Your task to perform on an android device: change text size in settings app Image 0: 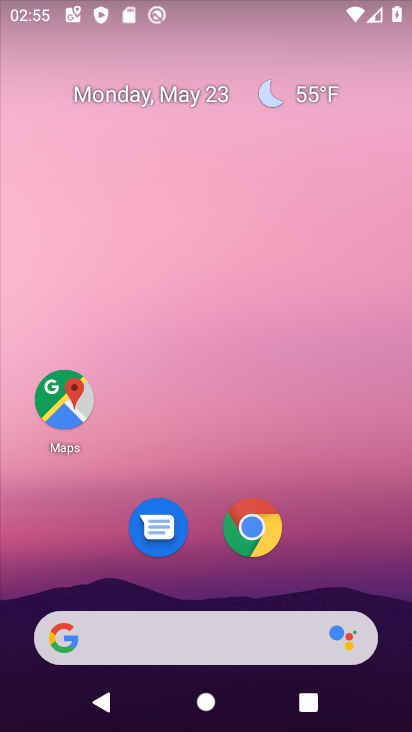
Step 0: drag from (332, 527) to (257, 50)
Your task to perform on an android device: change text size in settings app Image 1: 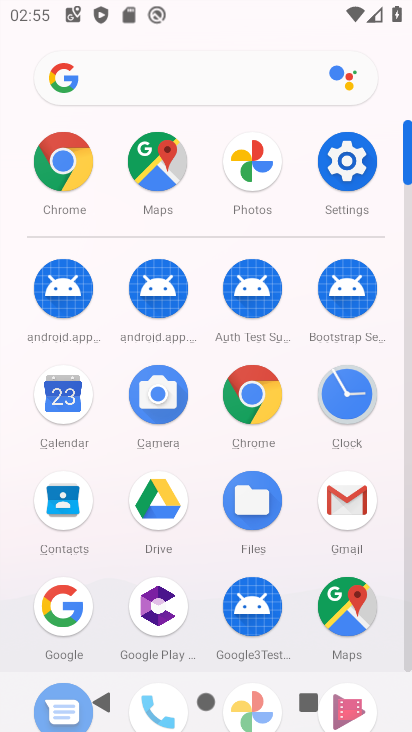
Step 1: drag from (4, 596) to (0, 206)
Your task to perform on an android device: change text size in settings app Image 2: 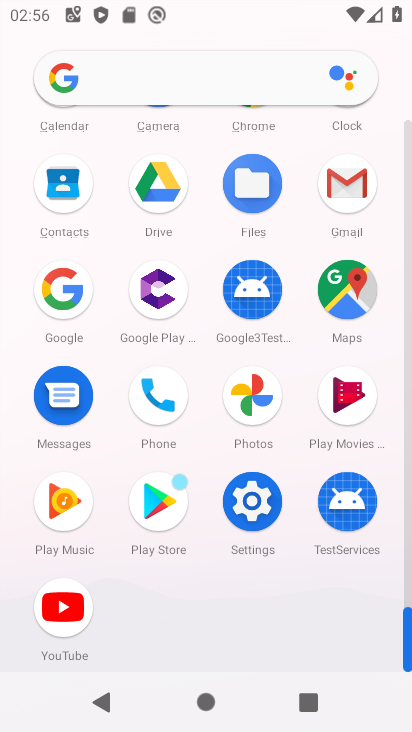
Step 2: click (251, 502)
Your task to perform on an android device: change text size in settings app Image 3: 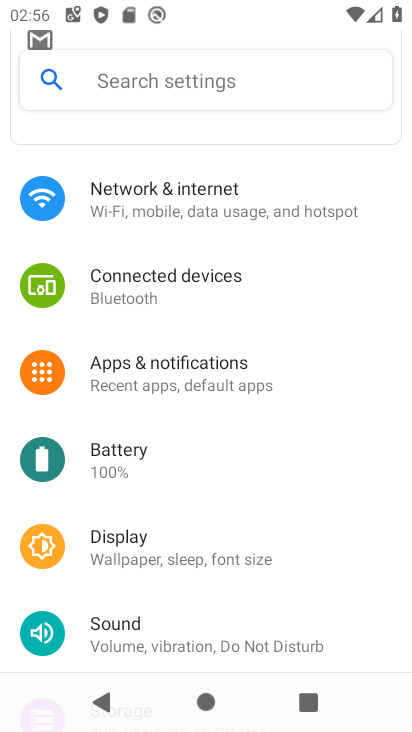
Step 3: drag from (253, 612) to (275, 238)
Your task to perform on an android device: change text size in settings app Image 4: 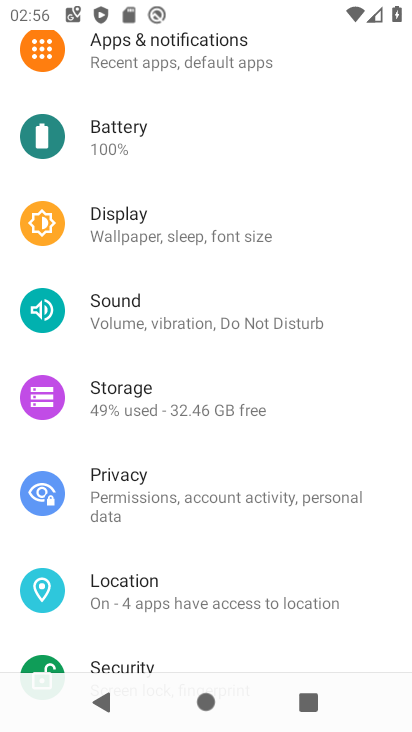
Step 4: drag from (244, 558) to (257, 145)
Your task to perform on an android device: change text size in settings app Image 5: 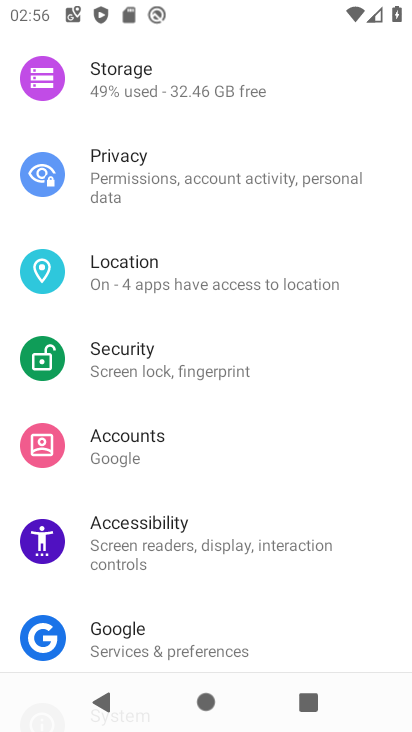
Step 5: drag from (222, 597) to (251, 116)
Your task to perform on an android device: change text size in settings app Image 6: 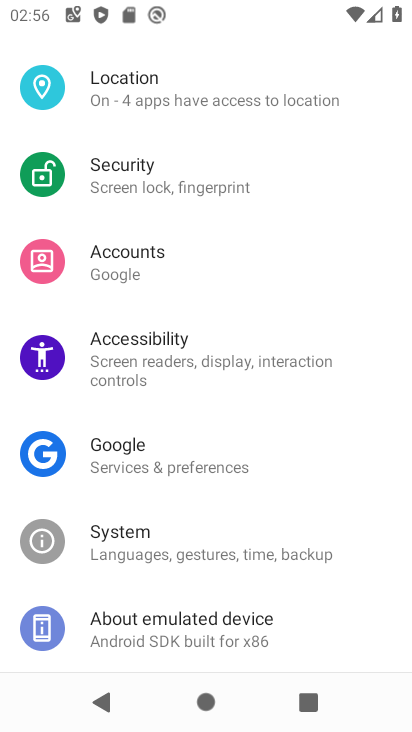
Step 6: drag from (204, 142) to (263, 706)
Your task to perform on an android device: change text size in settings app Image 7: 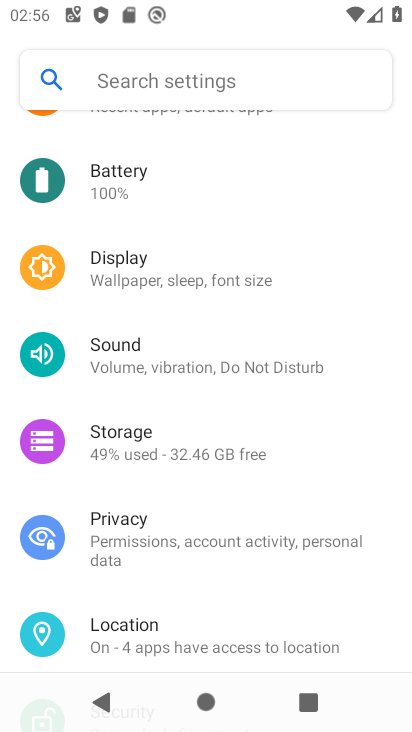
Step 7: click (212, 273)
Your task to perform on an android device: change text size in settings app Image 8: 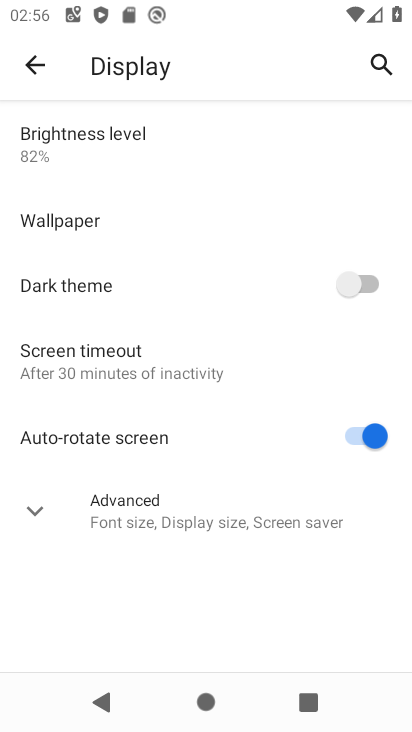
Step 8: click (75, 515)
Your task to perform on an android device: change text size in settings app Image 9: 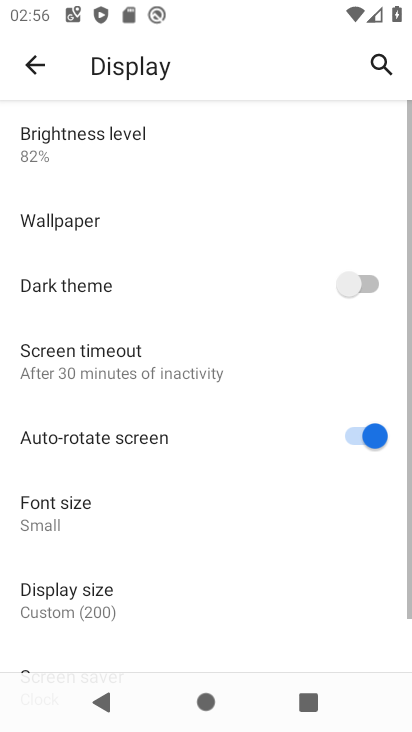
Step 9: drag from (243, 634) to (240, 218)
Your task to perform on an android device: change text size in settings app Image 10: 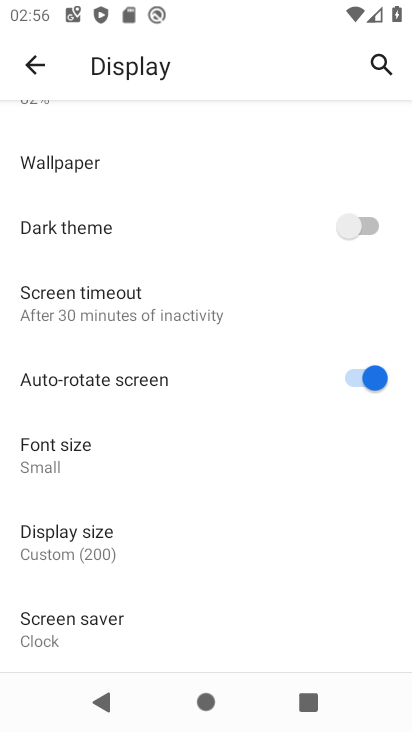
Step 10: drag from (219, 196) to (231, 657)
Your task to perform on an android device: change text size in settings app Image 11: 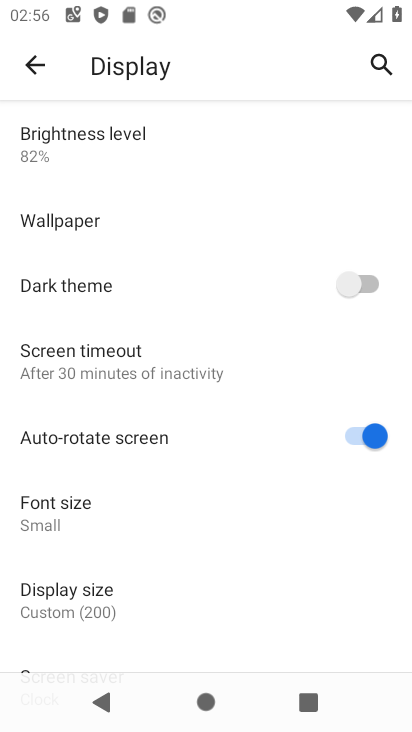
Step 11: click (37, 57)
Your task to perform on an android device: change text size in settings app Image 12: 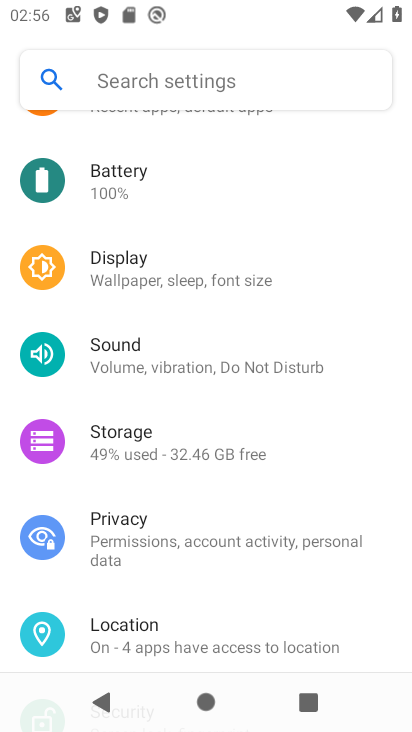
Step 12: drag from (287, 214) to (283, 590)
Your task to perform on an android device: change text size in settings app Image 13: 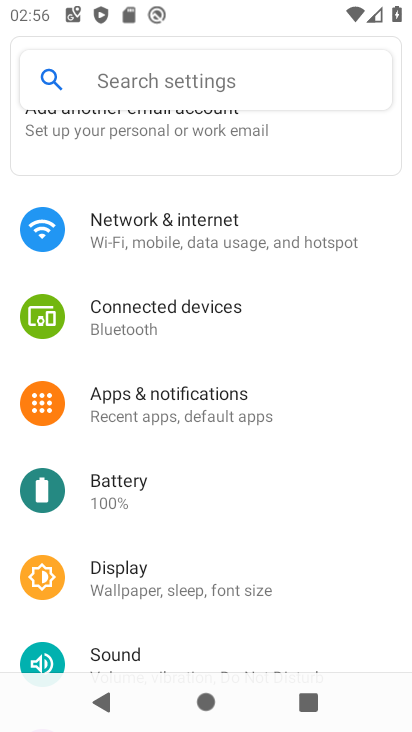
Step 13: click (206, 587)
Your task to perform on an android device: change text size in settings app Image 14: 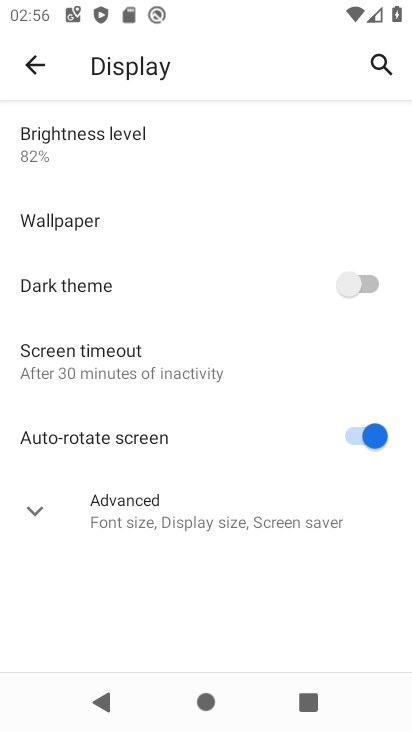
Step 14: click (68, 510)
Your task to perform on an android device: change text size in settings app Image 15: 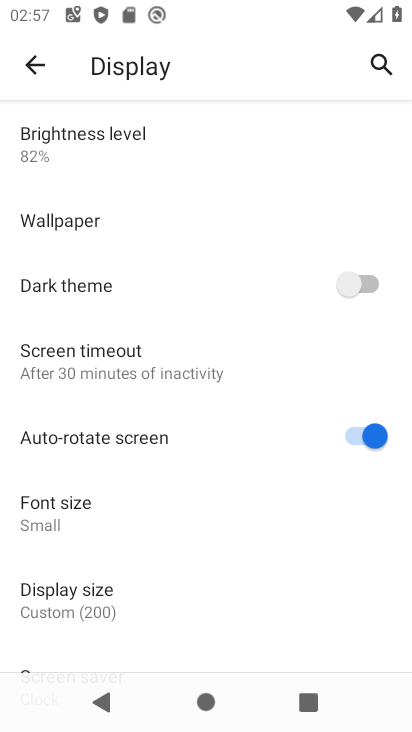
Step 15: drag from (187, 538) to (212, 157)
Your task to perform on an android device: change text size in settings app Image 16: 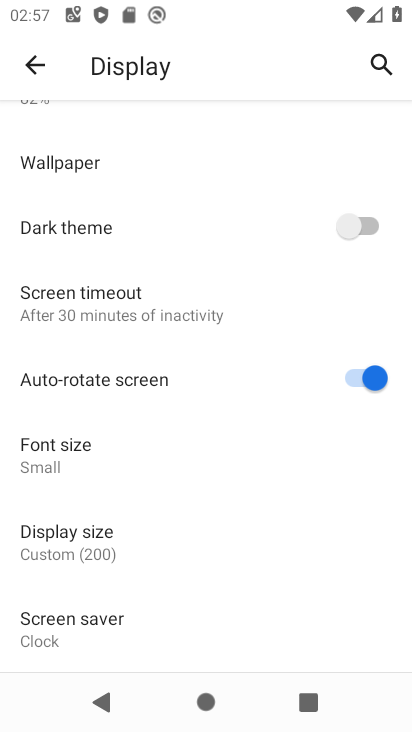
Step 16: drag from (213, 152) to (245, 608)
Your task to perform on an android device: change text size in settings app Image 17: 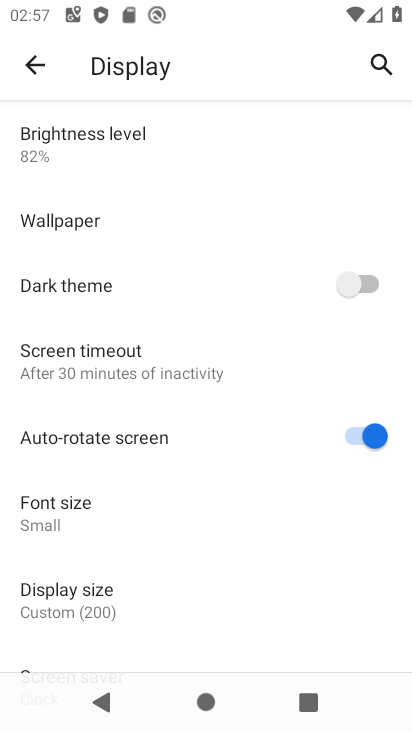
Step 17: click (87, 500)
Your task to perform on an android device: change text size in settings app Image 18: 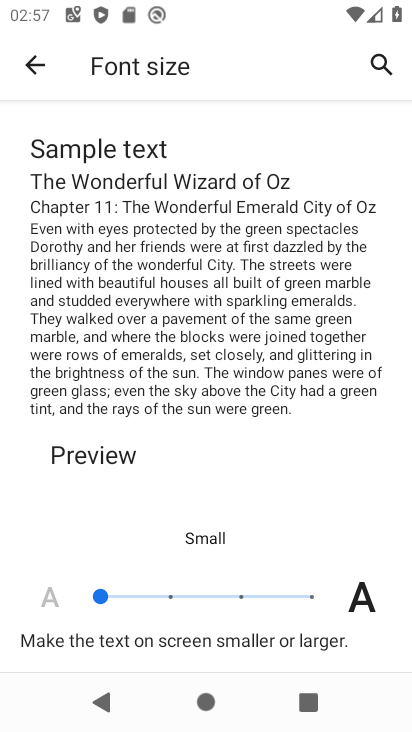
Step 18: click (245, 599)
Your task to perform on an android device: change text size in settings app Image 19: 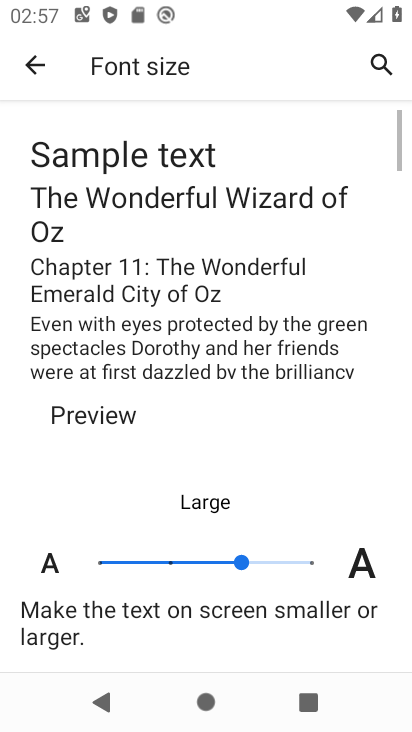
Step 19: click (303, 590)
Your task to perform on an android device: change text size in settings app Image 20: 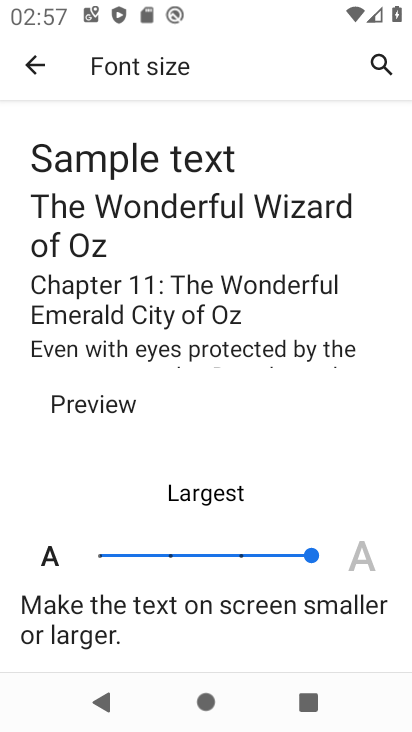
Step 20: task complete